Your task to perform on an android device: turn off notifications in google photos Image 0: 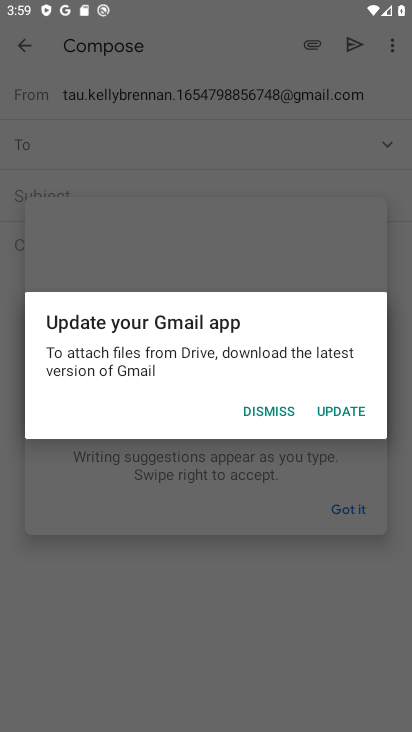
Step 0: press home button
Your task to perform on an android device: turn off notifications in google photos Image 1: 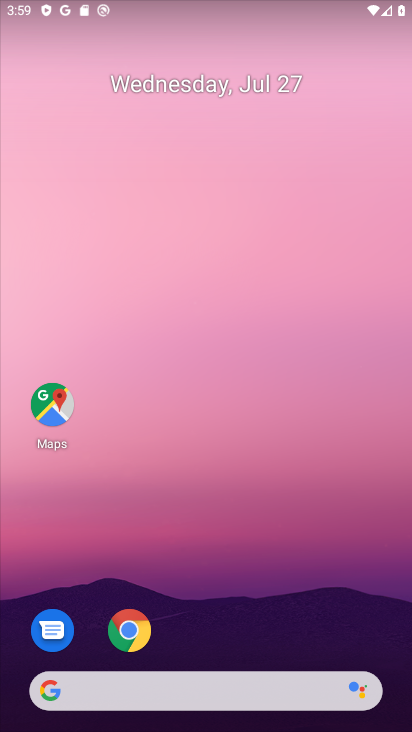
Step 1: drag from (215, 513) to (254, 7)
Your task to perform on an android device: turn off notifications in google photos Image 2: 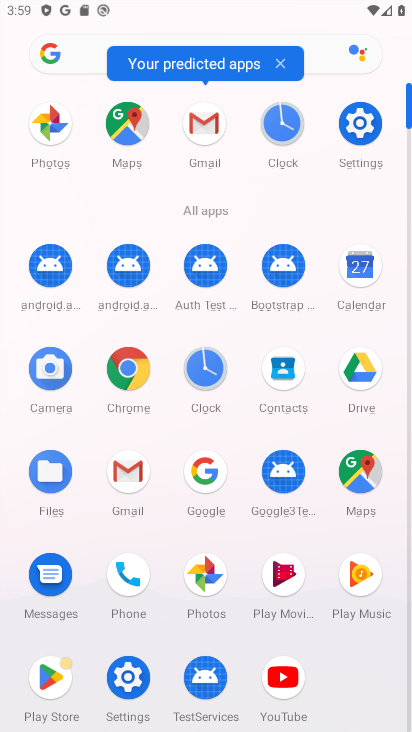
Step 2: click (215, 583)
Your task to perform on an android device: turn off notifications in google photos Image 3: 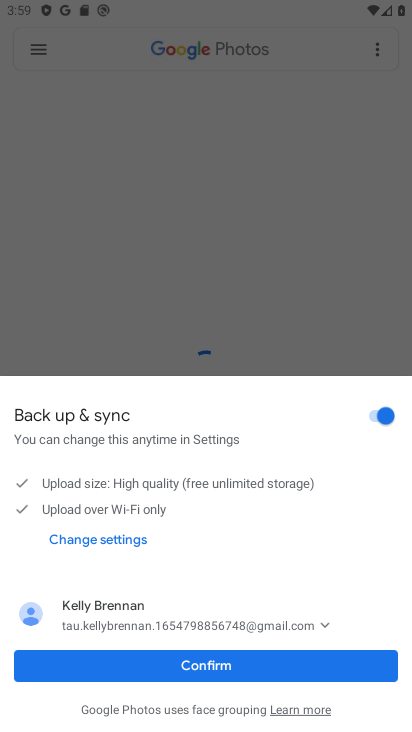
Step 3: click (240, 674)
Your task to perform on an android device: turn off notifications in google photos Image 4: 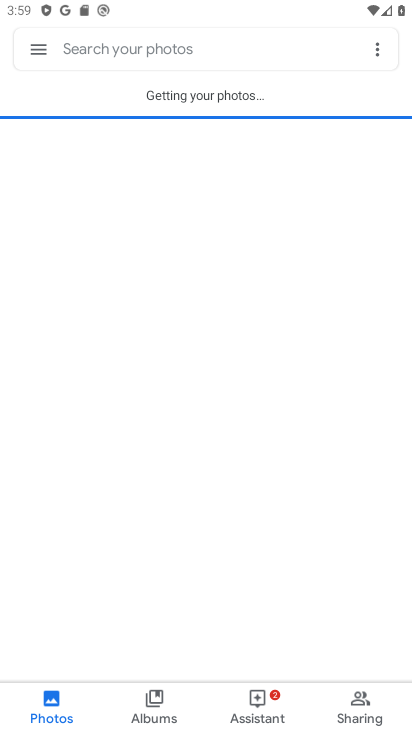
Step 4: click (39, 42)
Your task to perform on an android device: turn off notifications in google photos Image 5: 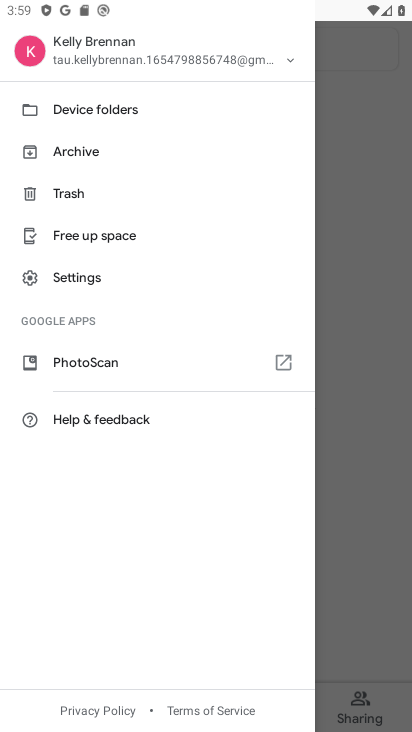
Step 5: click (75, 272)
Your task to perform on an android device: turn off notifications in google photos Image 6: 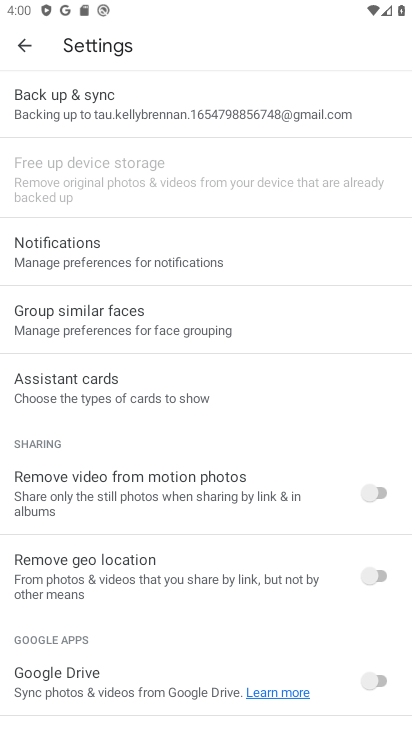
Step 6: click (95, 266)
Your task to perform on an android device: turn off notifications in google photos Image 7: 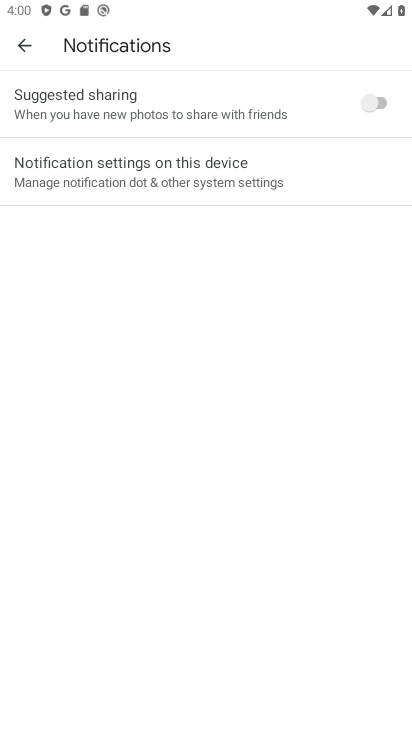
Step 7: click (108, 169)
Your task to perform on an android device: turn off notifications in google photos Image 8: 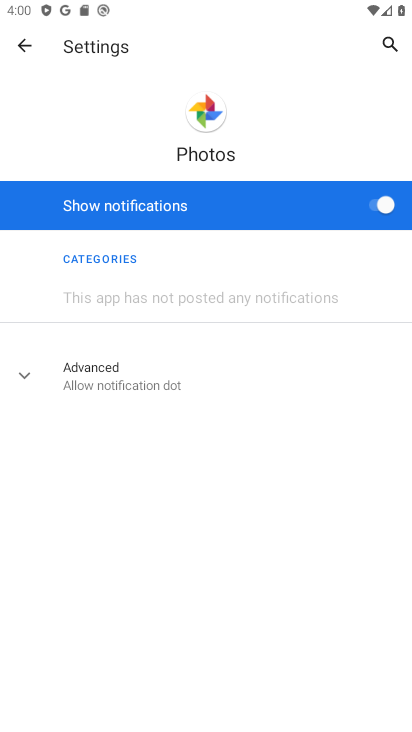
Step 8: click (352, 207)
Your task to perform on an android device: turn off notifications in google photos Image 9: 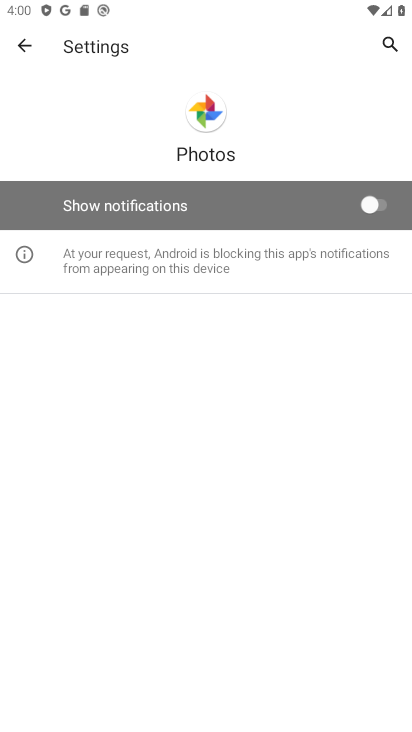
Step 9: task complete